Your task to perform on an android device: Open Google Maps and go to "Timeline" Image 0: 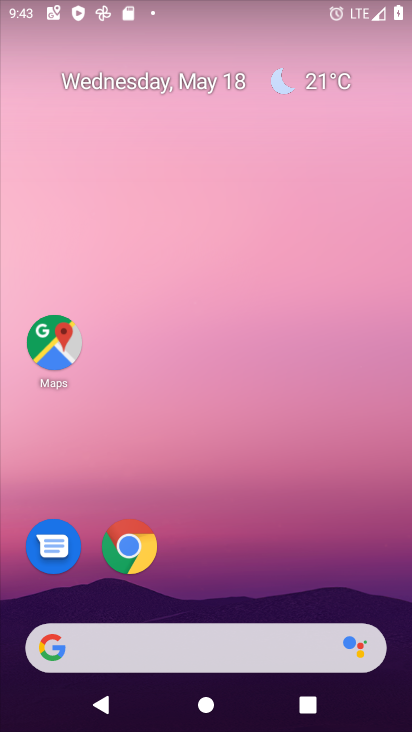
Step 0: drag from (398, 625) to (347, 67)
Your task to perform on an android device: Open Google Maps and go to "Timeline" Image 1: 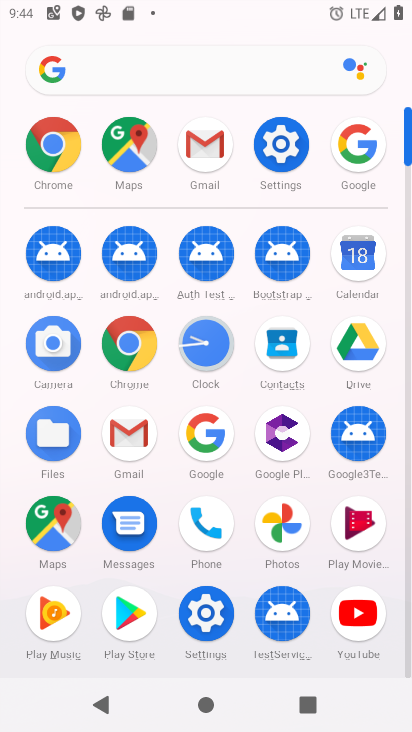
Step 1: click (60, 522)
Your task to perform on an android device: Open Google Maps and go to "Timeline" Image 2: 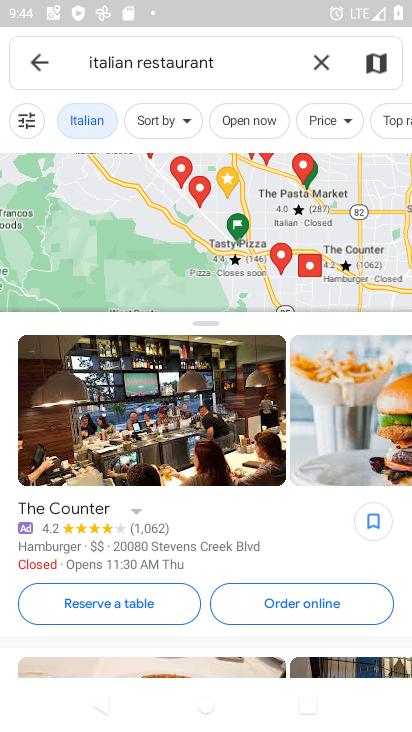
Step 2: click (329, 62)
Your task to perform on an android device: Open Google Maps and go to "Timeline" Image 3: 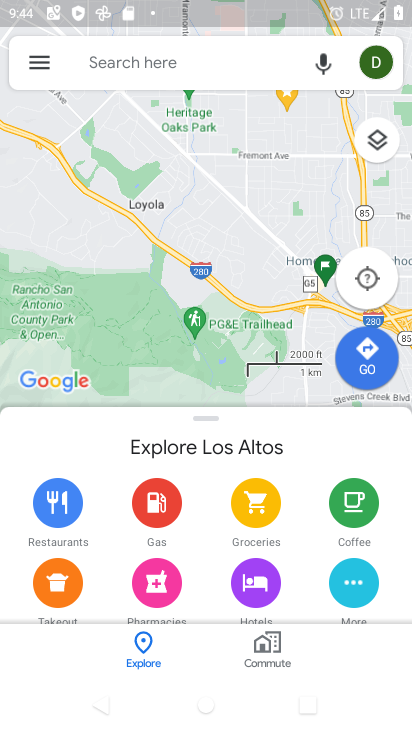
Step 3: click (39, 70)
Your task to perform on an android device: Open Google Maps and go to "Timeline" Image 4: 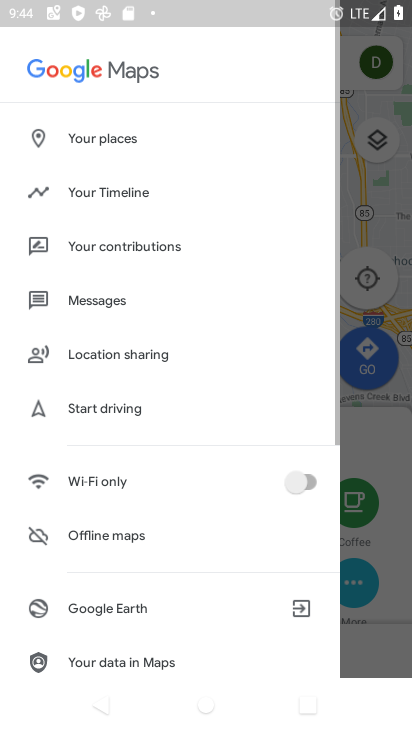
Step 4: click (156, 209)
Your task to perform on an android device: Open Google Maps and go to "Timeline" Image 5: 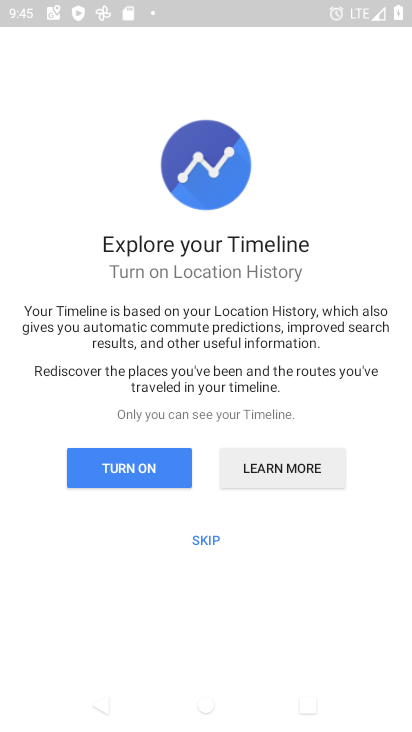
Step 5: task complete